Your task to perform on an android device: search for starred emails in the gmail app Image 0: 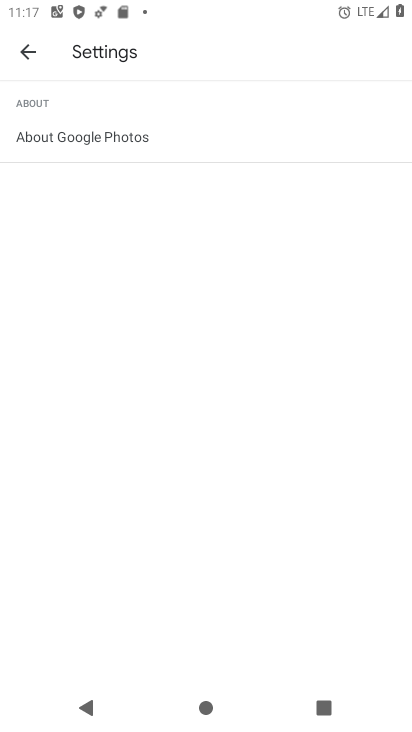
Step 0: press home button
Your task to perform on an android device: search for starred emails in the gmail app Image 1: 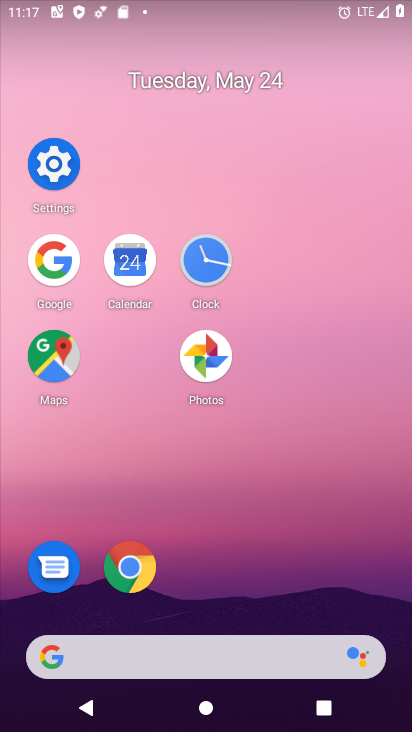
Step 1: drag from (278, 392) to (357, 121)
Your task to perform on an android device: search for starred emails in the gmail app Image 2: 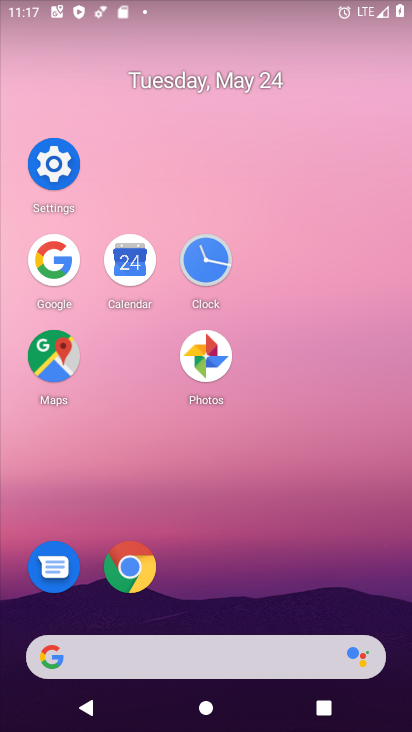
Step 2: drag from (229, 628) to (362, 84)
Your task to perform on an android device: search for starred emails in the gmail app Image 3: 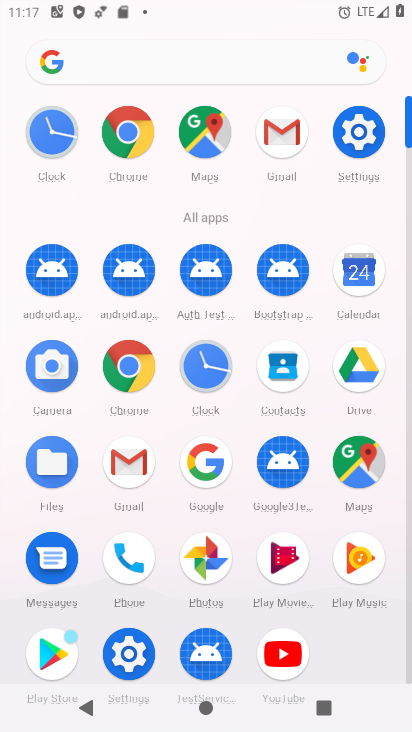
Step 3: drag from (127, 460) to (132, 358)
Your task to perform on an android device: search for starred emails in the gmail app Image 4: 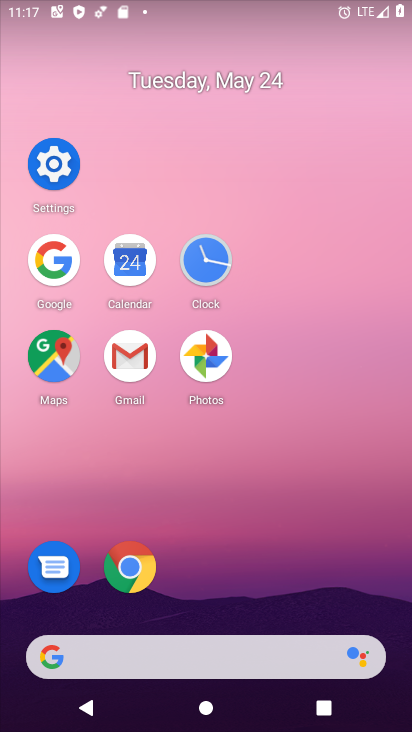
Step 4: click (134, 353)
Your task to perform on an android device: search for starred emails in the gmail app Image 5: 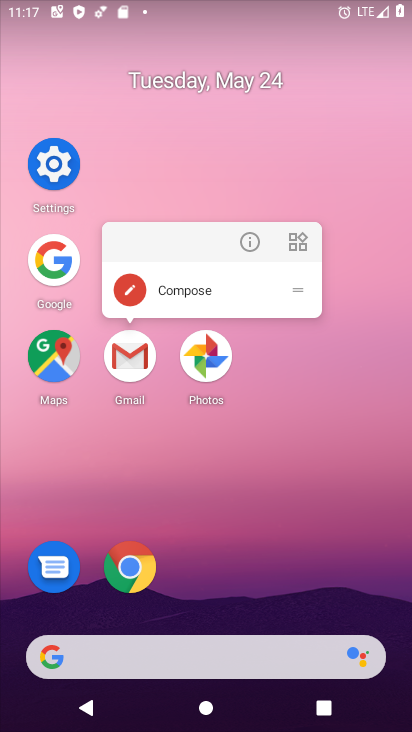
Step 5: click (134, 355)
Your task to perform on an android device: search for starred emails in the gmail app Image 6: 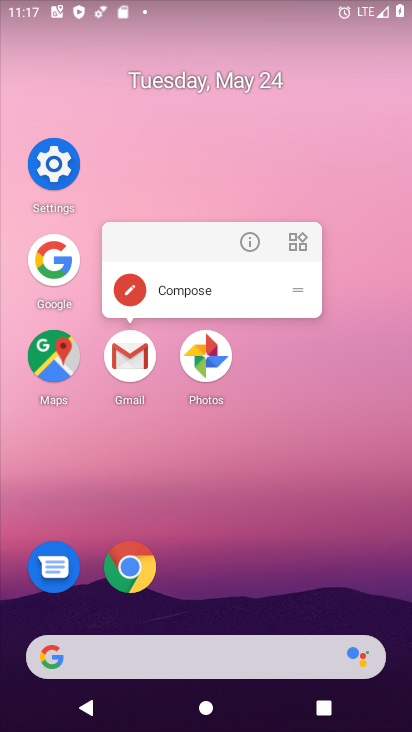
Step 6: click (134, 366)
Your task to perform on an android device: search for starred emails in the gmail app Image 7: 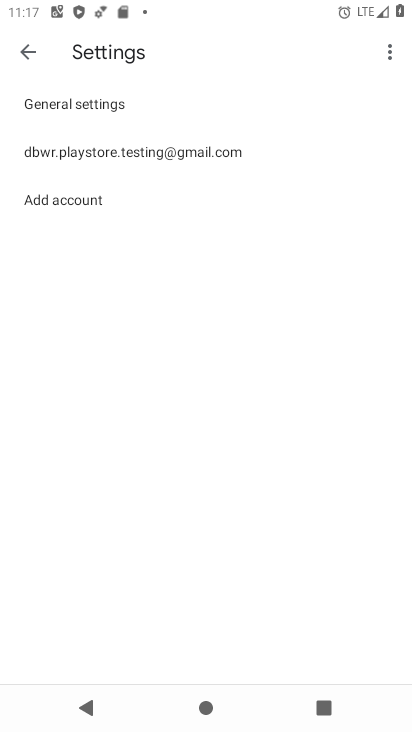
Step 7: click (21, 58)
Your task to perform on an android device: search for starred emails in the gmail app Image 8: 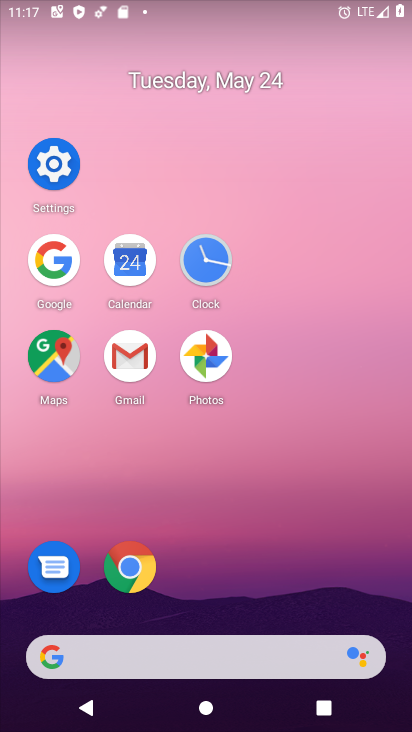
Step 8: click (118, 370)
Your task to perform on an android device: search for starred emails in the gmail app Image 9: 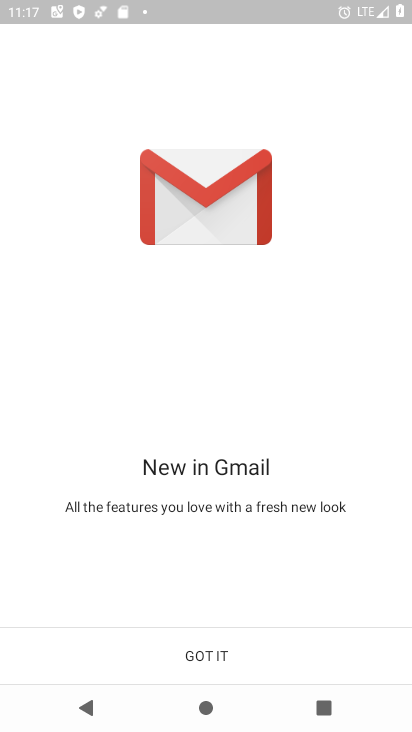
Step 9: click (260, 663)
Your task to perform on an android device: search for starred emails in the gmail app Image 10: 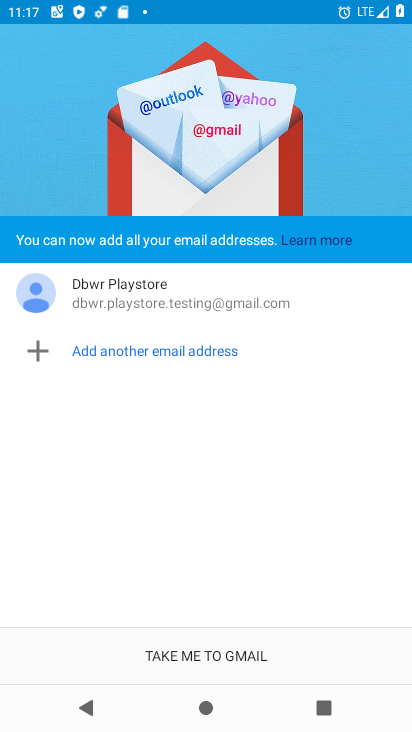
Step 10: click (261, 663)
Your task to perform on an android device: search for starred emails in the gmail app Image 11: 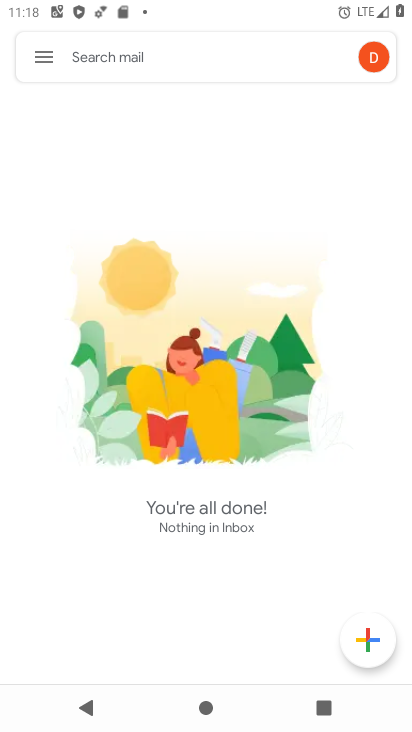
Step 11: click (29, 49)
Your task to perform on an android device: search for starred emails in the gmail app Image 12: 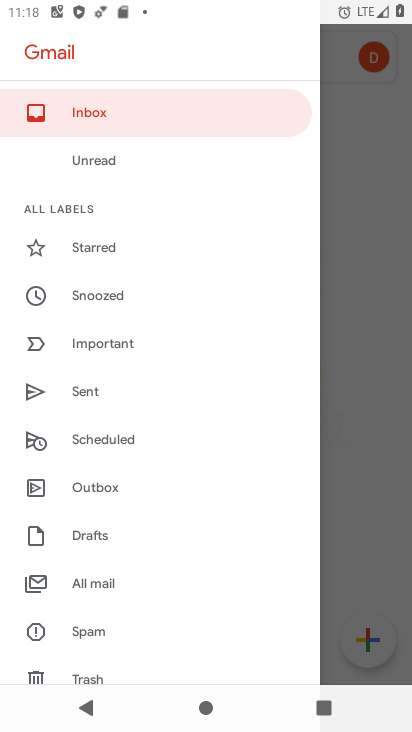
Step 12: click (127, 242)
Your task to perform on an android device: search for starred emails in the gmail app Image 13: 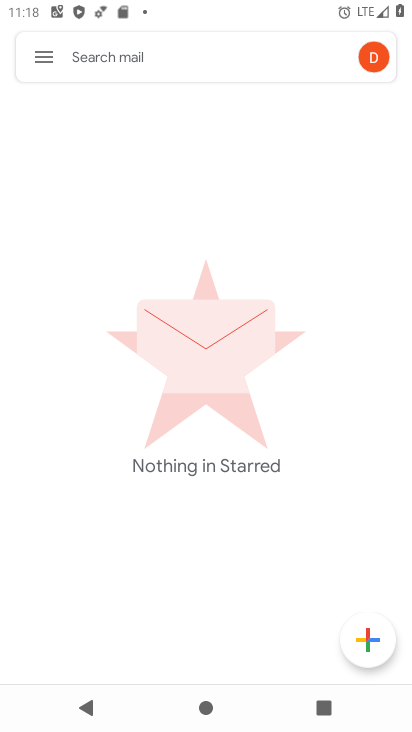
Step 13: task complete